Your task to perform on an android device: open the mobile data screen to see how much data has been used Image 0: 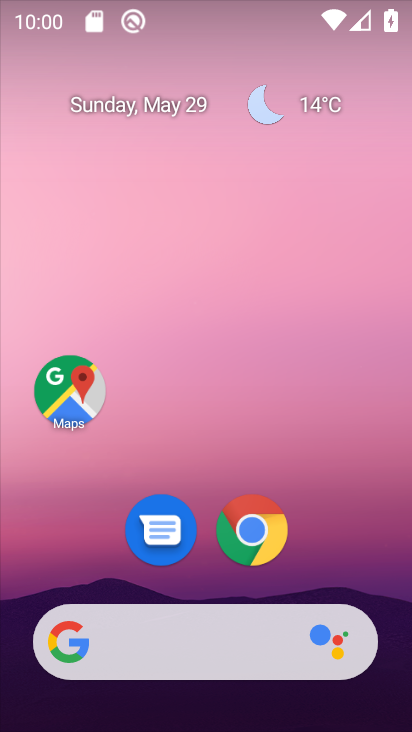
Step 0: drag from (176, 618) to (62, 1)
Your task to perform on an android device: open the mobile data screen to see how much data has been used Image 1: 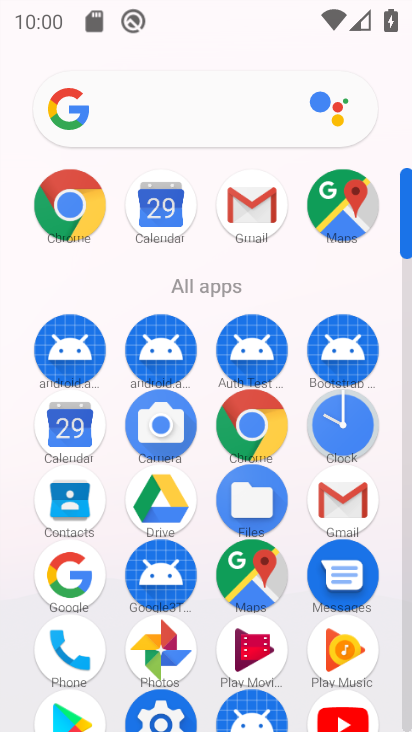
Step 1: click (166, 721)
Your task to perform on an android device: open the mobile data screen to see how much data has been used Image 2: 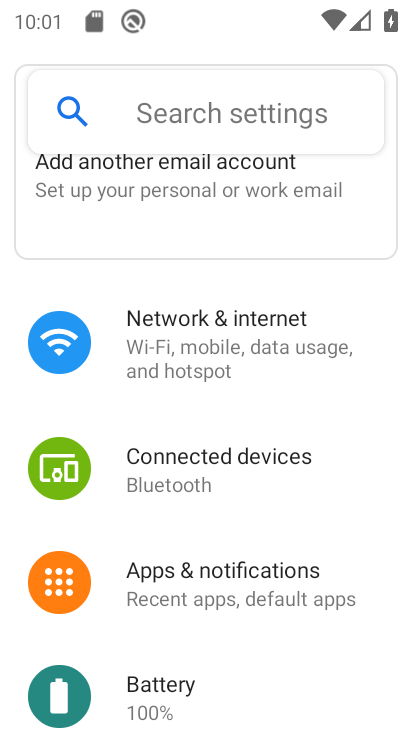
Step 2: click (211, 330)
Your task to perform on an android device: open the mobile data screen to see how much data has been used Image 3: 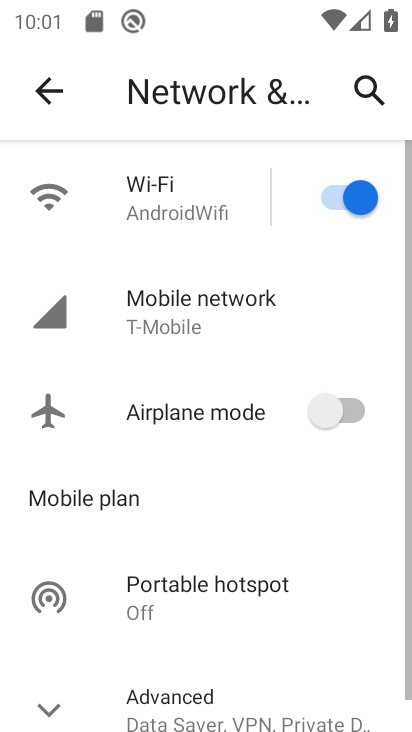
Step 3: click (211, 321)
Your task to perform on an android device: open the mobile data screen to see how much data has been used Image 4: 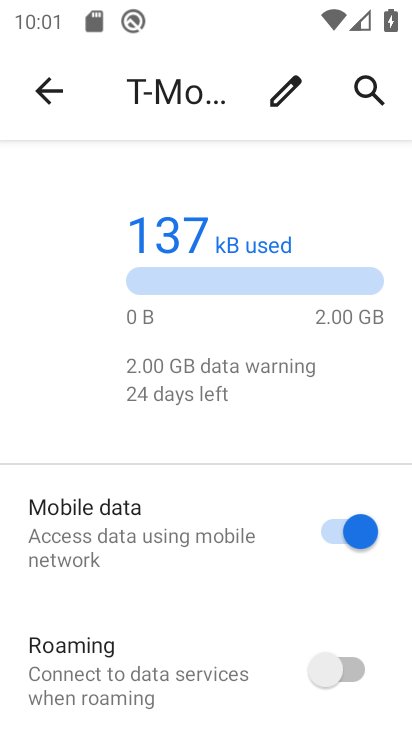
Step 4: task complete